Your task to perform on an android device: Toggle the flashlight Image 0: 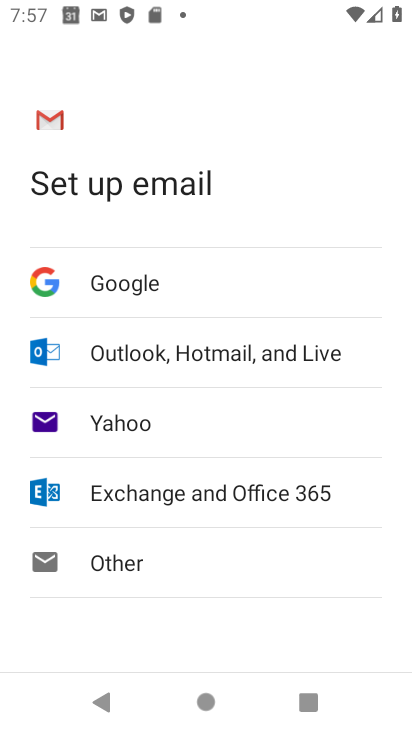
Step 0: press home button
Your task to perform on an android device: Toggle the flashlight Image 1: 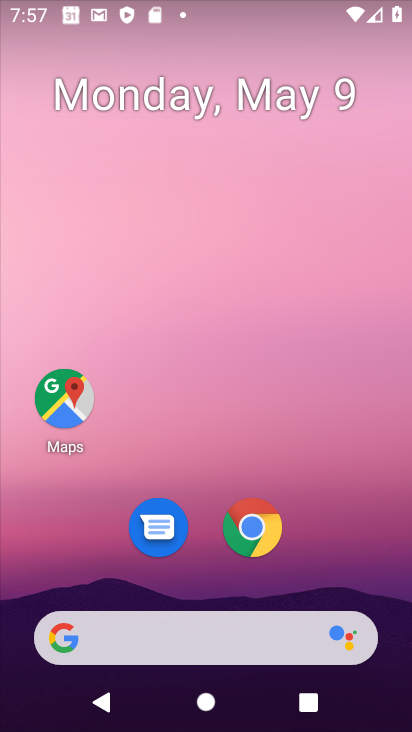
Step 1: task complete